Your task to perform on an android device: What is the news today? Image 0: 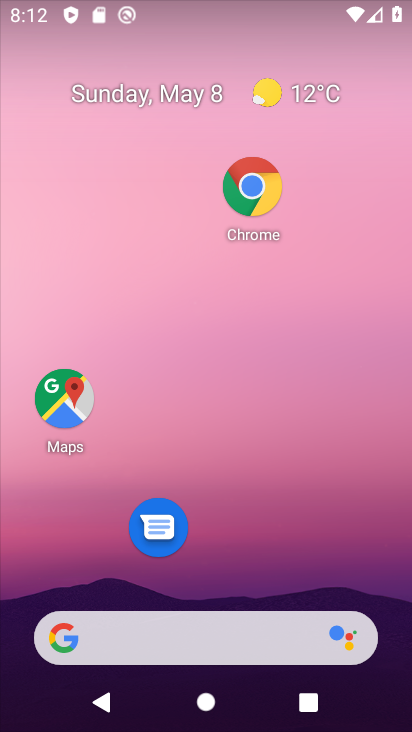
Step 0: drag from (293, 488) to (345, 206)
Your task to perform on an android device: What is the news today? Image 1: 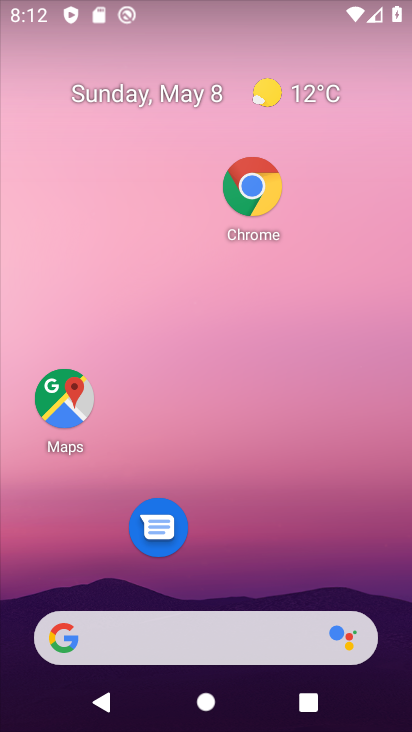
Step 1: drag from (258, 511) to (274, 190)
Your task to perform on an android device: What is the news today? Image 2: 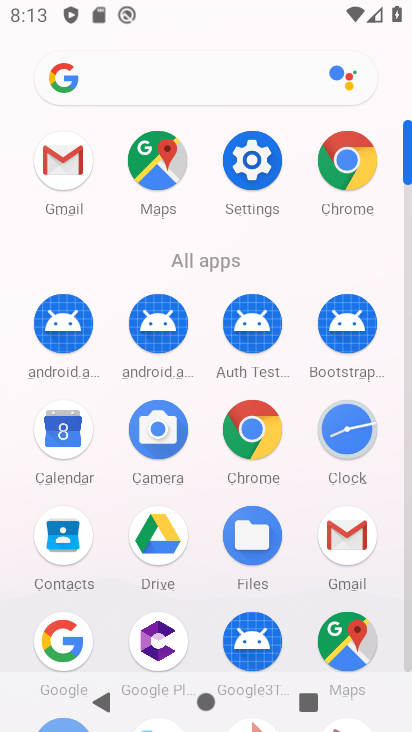
Step 2: drag from (200, 619) to (284, 228)
Your task to perform on an android device: What is the news today? Image 3: 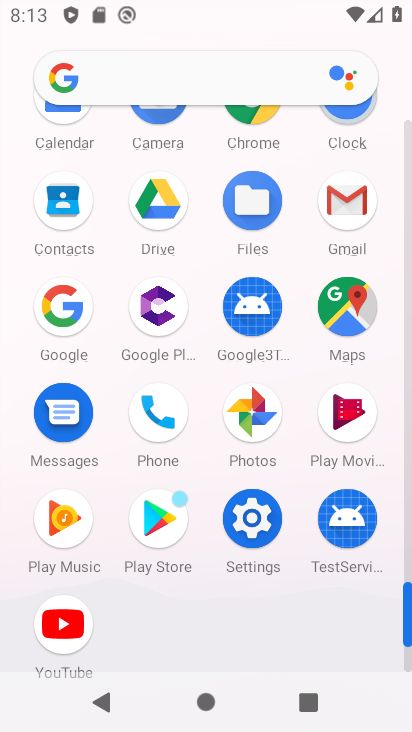
Step 3: drag from (175, 208) to (165, 617)
Your task to perform on an android device: What is the news today? Image 4: 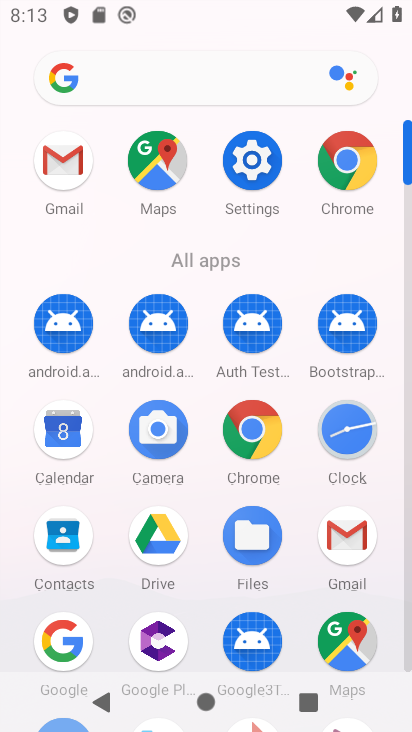
Step 4: click (250, 426)
Your task to perform on an android device: What is the news today? Image 5: 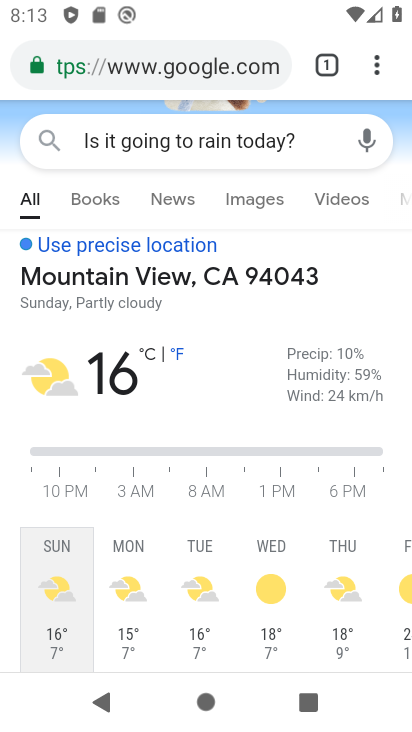
Step 5: click (318, 138)
Your task to perform on an android device: What is the news today? Image 6: 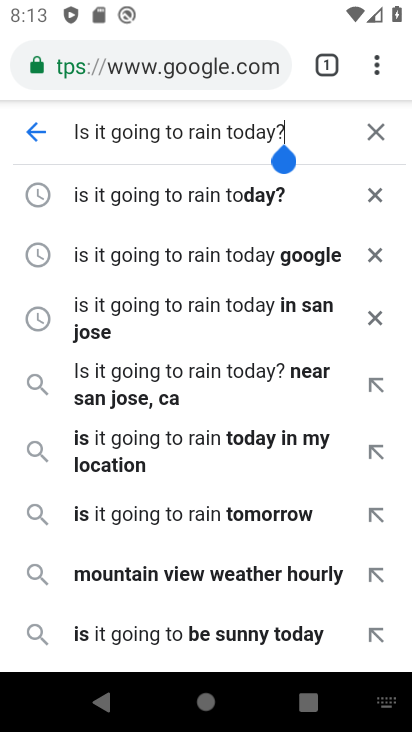
Step 6: click (376, 132)
Your task to perform on an android device: What is the news today? Image 7: 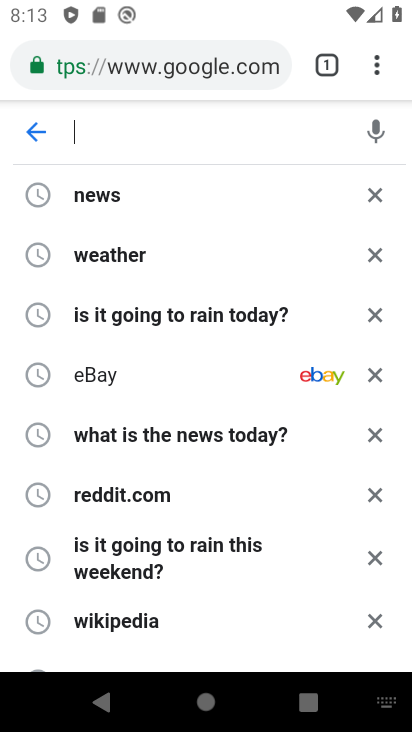
Step 7: click (185, 130)
Your task to perform on an android device: What is the news today? Image 8: 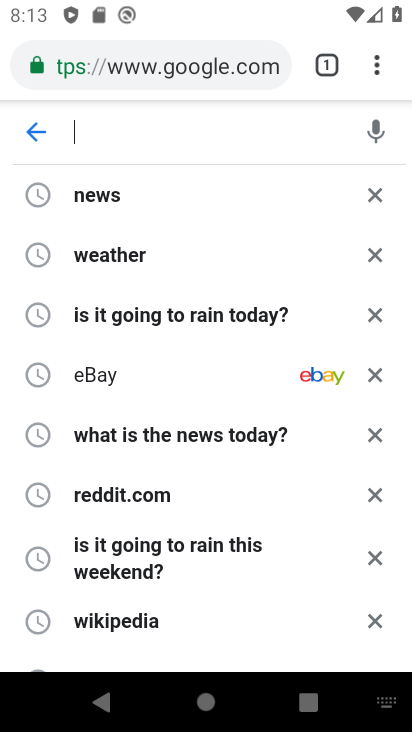
Step 8: type "What is the news today?"
Your task to perform on an android device: What is the news today? Image 9: 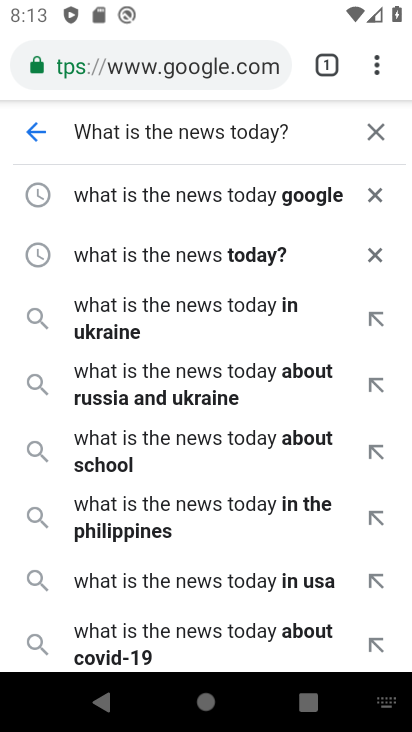
Step 9: click (178, 118)
Your task to perform on an android device: What is the news today? Image 10: 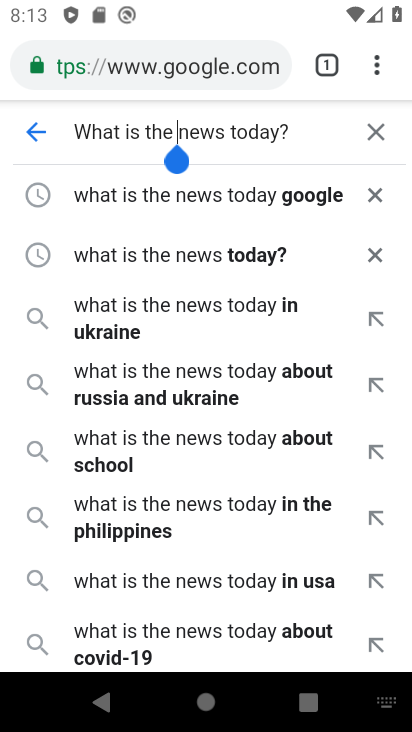
Step 10: click (185, 137)
Your task to perform on an android device: What is the news today? Image 11: 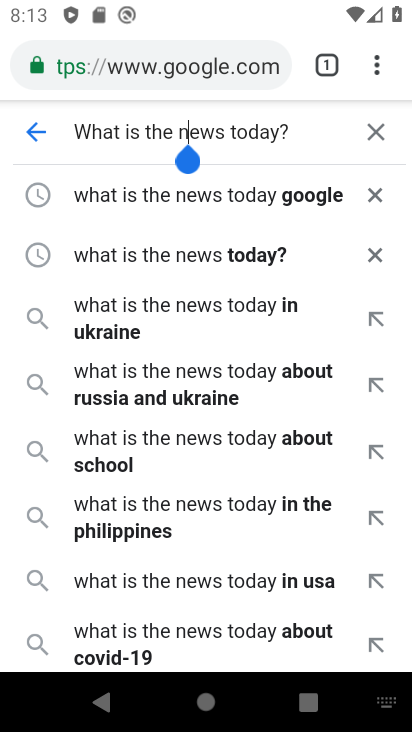
Step 11: click (206, 259)
Your task to perform on an android device: What is the news today? Image 12: 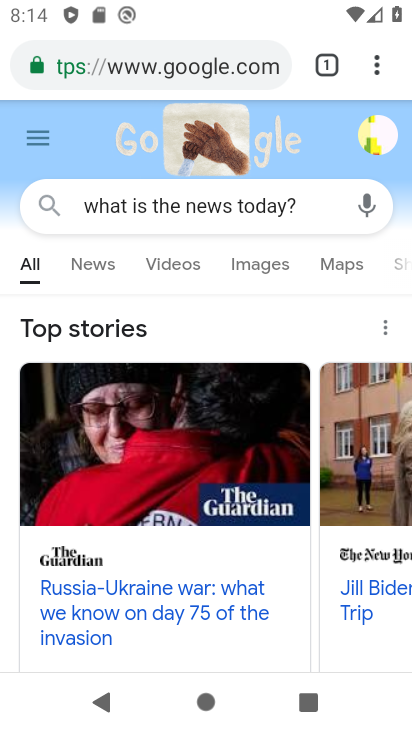
Step 12: task complete